Your task to perform on an android device: Do I have any events tomorrow? Image 0: 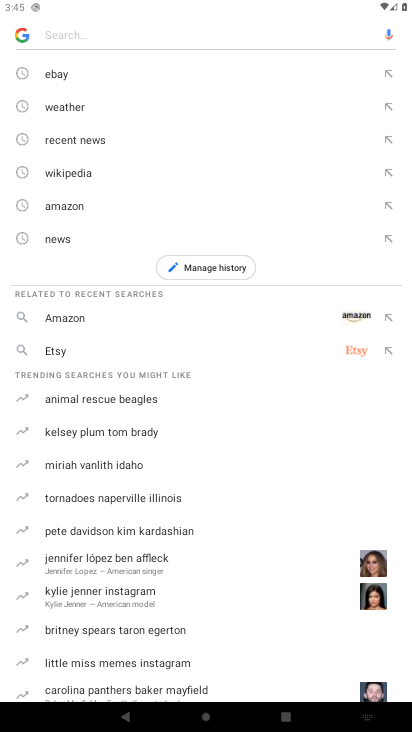
Step 0: press home button
Your task to perform on an android device: Do I have any events tomorrow? Image 1: 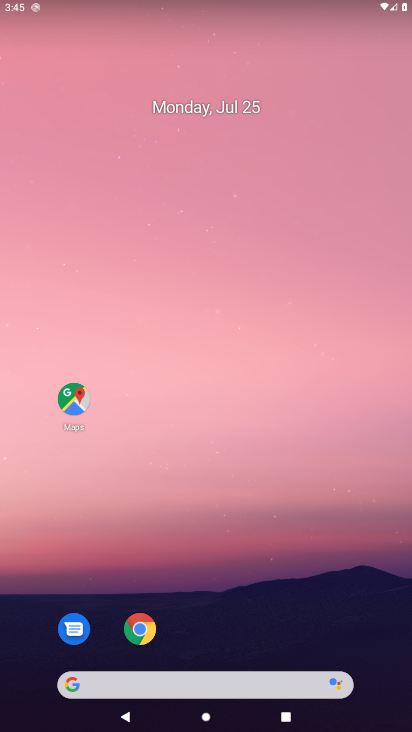
Step 1: drag from (24, 683) to (167, 242)
Your task to perform on an android device: Do I have any events tomorrow? Image 2: 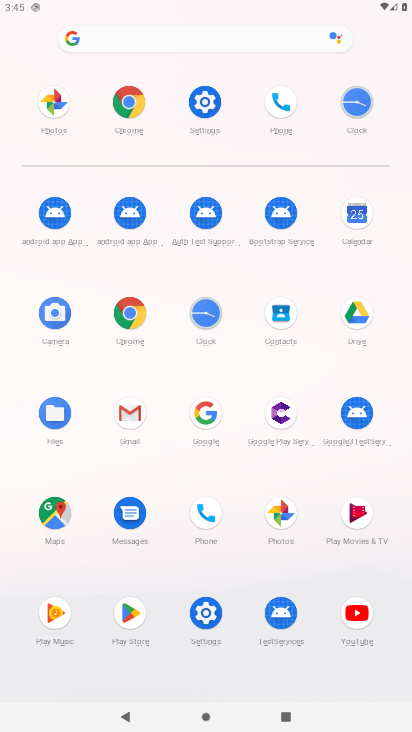
Step 2: click (356, 226)
Your task to perform on an android device: Do I have any events tomorrow? Image 3: 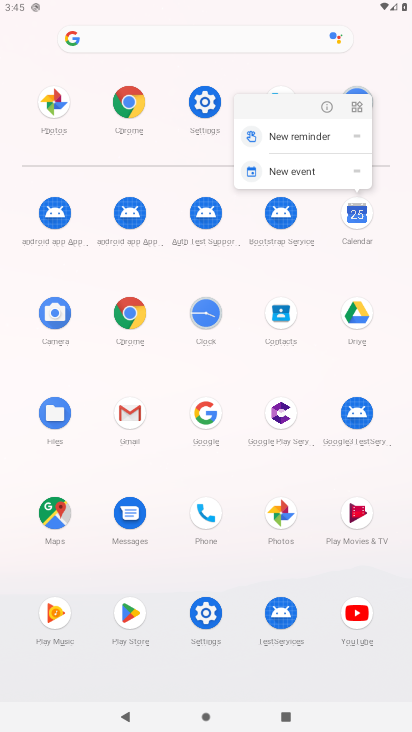
Step 3: click (359, 228)
Your task to perform on an android device: Do I have any events tomorrow? Image 4: 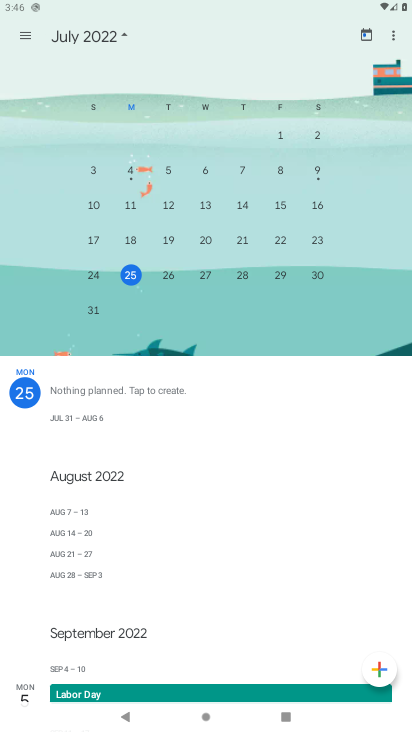
Step 4: task complete